Your task to perform on an android device: Do I have any events this weekend? Image 0: 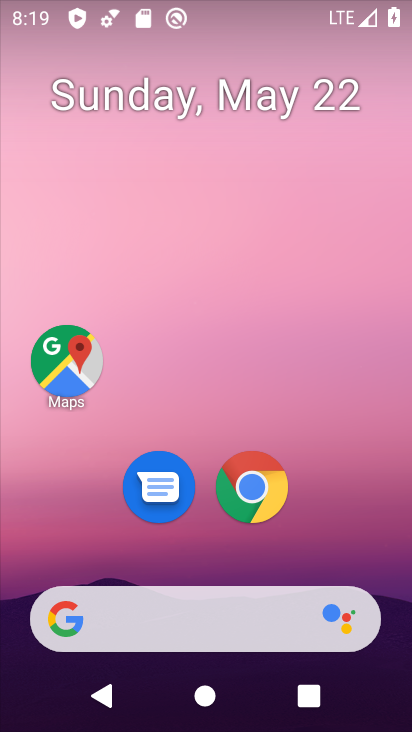
Step 0: drag from (343, 549) to (279, 148)
Your task to perform on an android device: Do I have any events this weekend? Image 1: 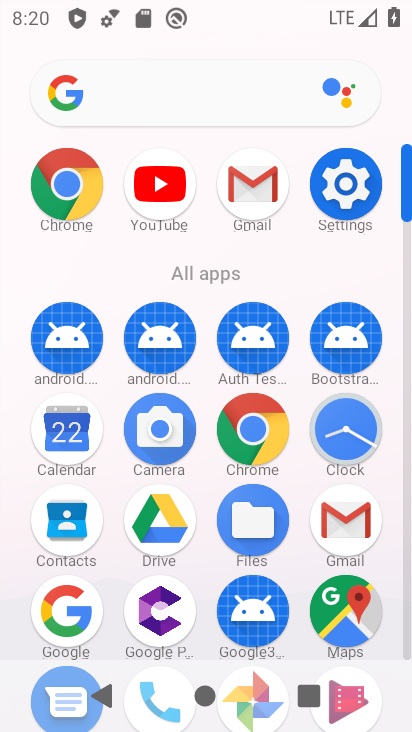
Step 1: click (73, 423)
Your task to perform on an android device: Do I have any events this weekend? Image 2: 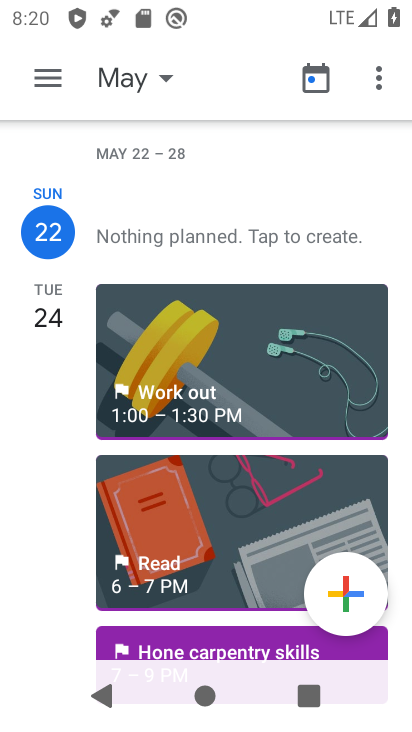
Step 2: click (148, 91)
Your task to perform on an android device: Do I have any events this weekend? Image 3: 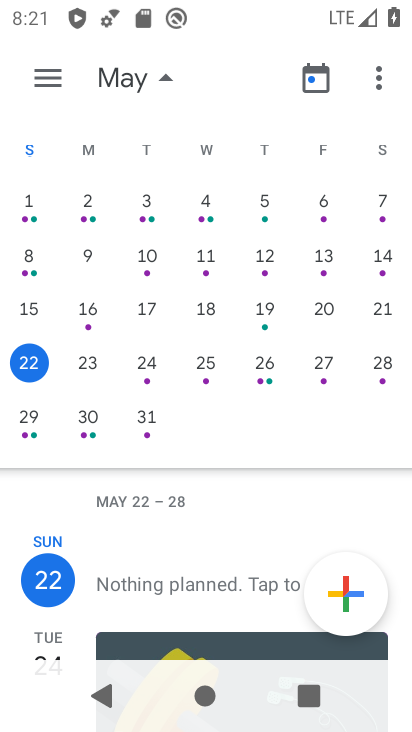
Step 3: task complete